Your task to perform on an android device: stop showing notifications on the lock screen Image 0: 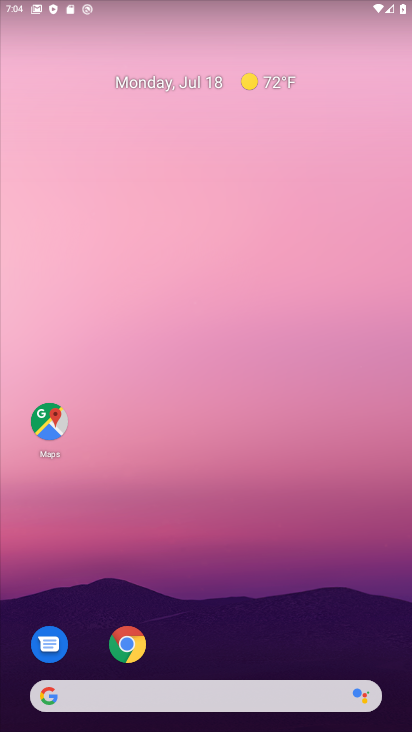
Step 0: drag from (237, 662) to (163, 38)
Your task to perform on an android device: stop showing notifications on the lock screen Image 1: 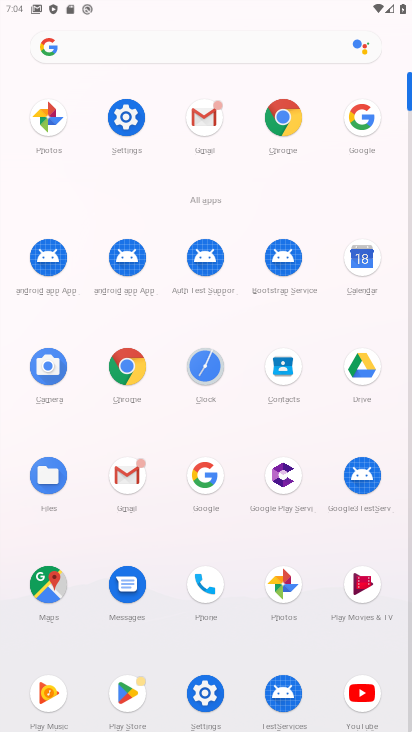
Step 1: click (195, 694)
Your task to perform on an android device: stop showing notifications on the lock screen Image 2: 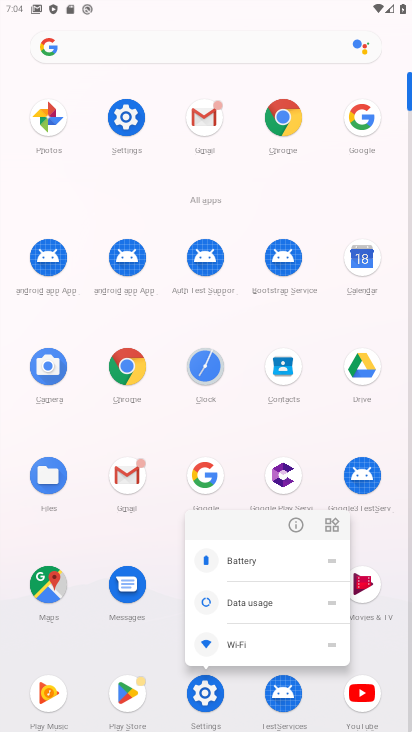
Step 2: click (195, 694)
Your task to perform on an android device: stop showing notifications on the lock screen Image 3: 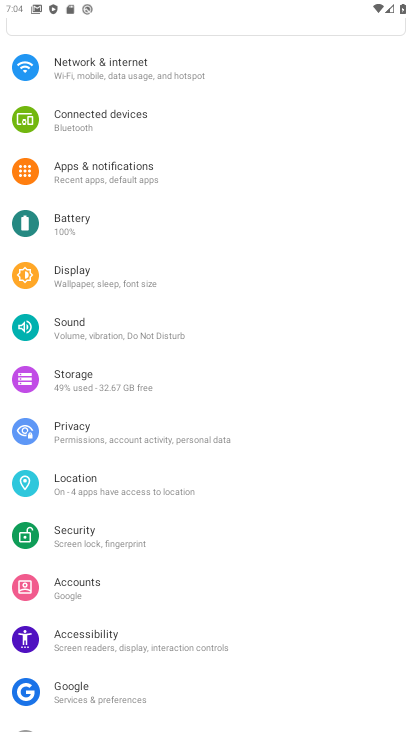
Step 3: click (145, 183)
Your task to perform on an android device: stop showing notifications on the lock screen Image 4: 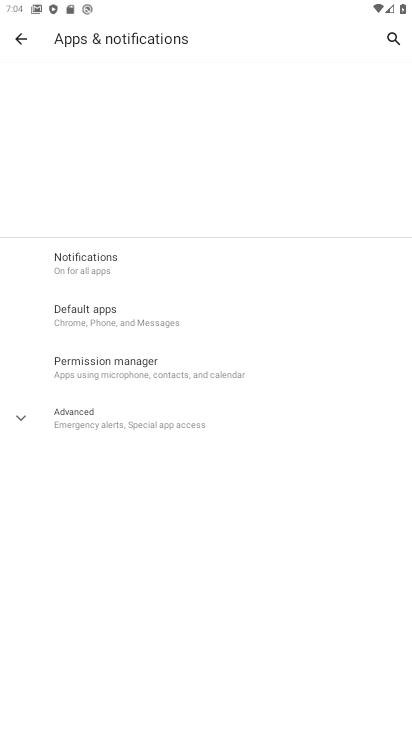
Step 4: click (90, 261)
Your task to perform on an android device: stop showing notifications on the lock screen Image 5: 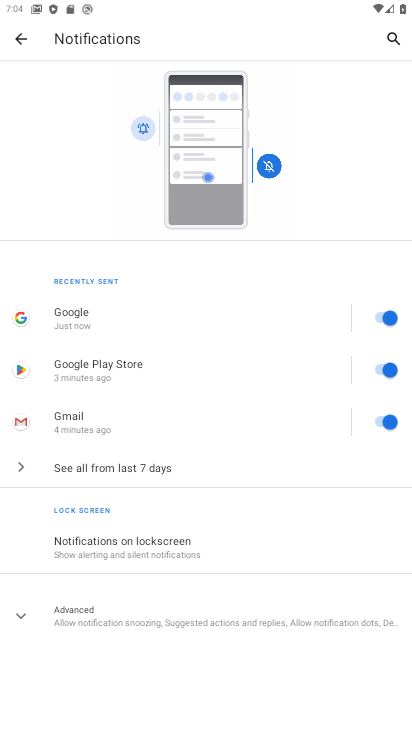
Step 5: click (83, 547)
Your task to perform on an android device: stop showing notifications on the lock screen Image 6: 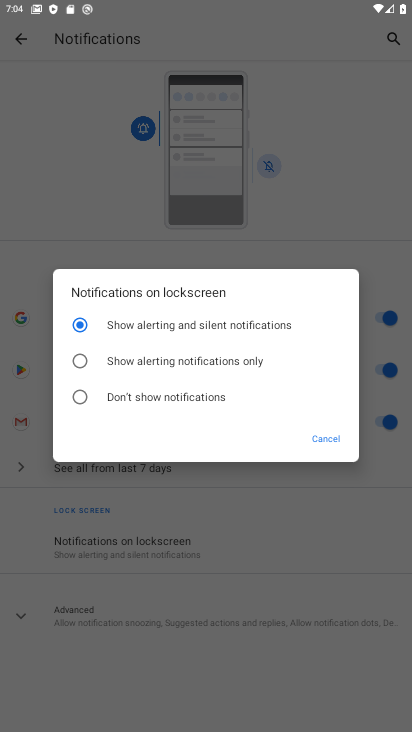
Step 6: click (81, 400)
Your task to perform on an android device: stop showing notifications on the lock screen Image 7: 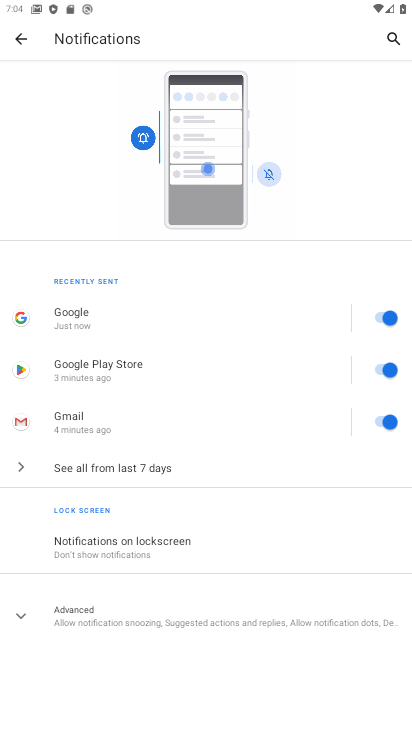
Step 7: task complete